Your task to perform on an android device: Go to CNN.com Image 0: 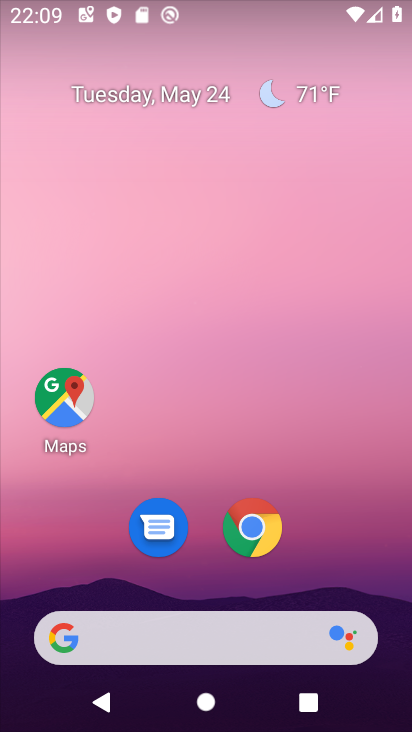
Step 0: click (249, 513)
Your task to perform on an android device: Go to CNN.com Image 1: 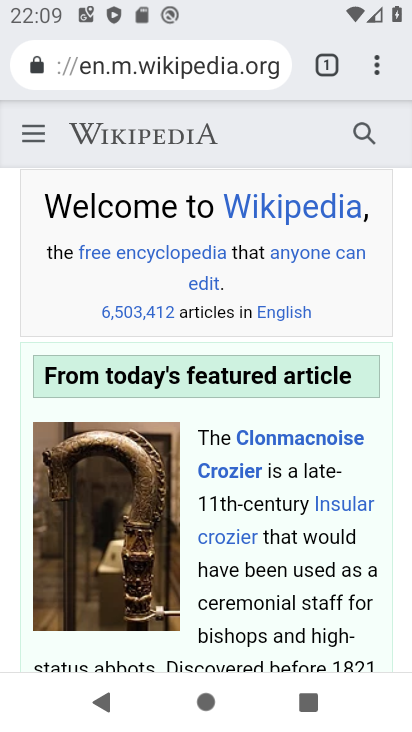
Step 1: click (153, 56)
Your task to perform on an android device: Go to CNN.com Image 2: 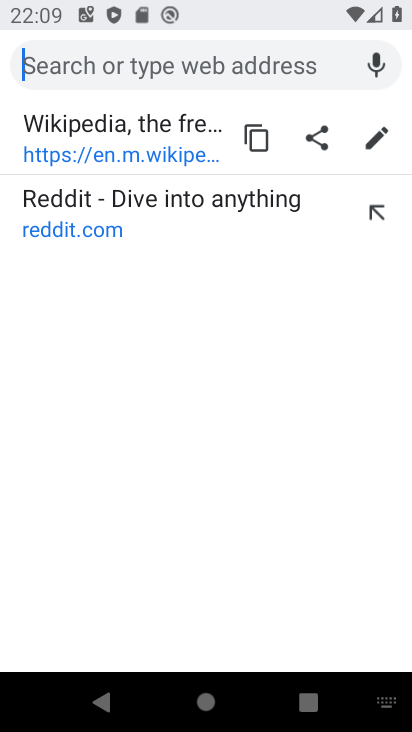
Step 2: type "CNN.com"
Your task to perform on an android device: Go to CNN.com Image 3: 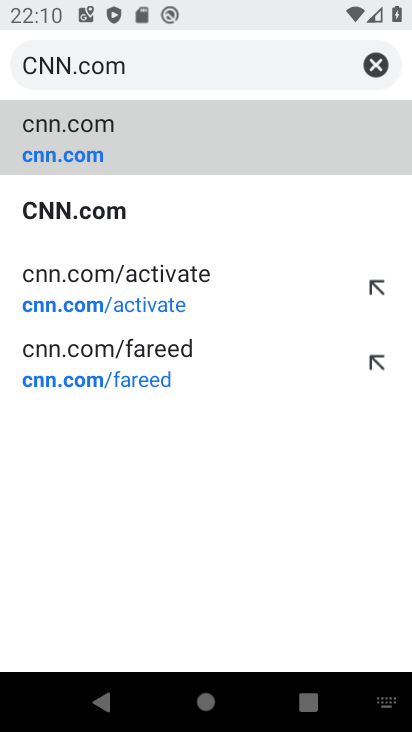
Step 3: click (68, 149)
Your task to perform on an android device: Go to CNN.com Image 4: 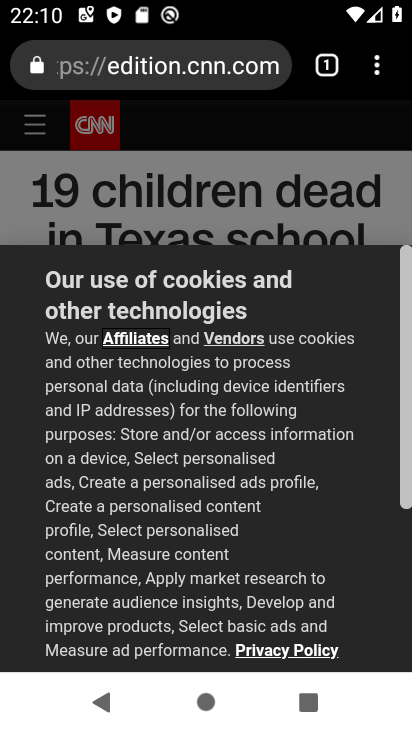
Step 4: task complete